Your task to perform on an android device: See recent photos Image 0: 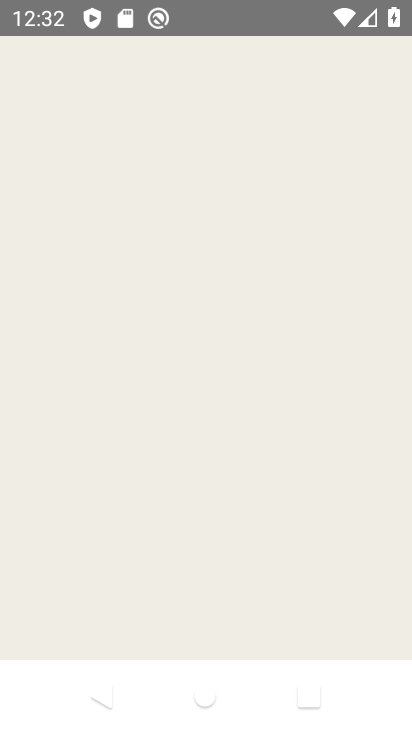
Step 0: click (214, 73)
Your task to perform on an android device: See recent photos Image 1: 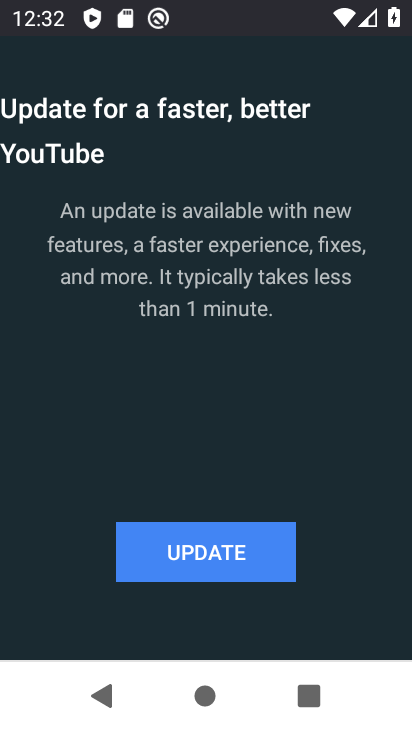
Step 1: press home button
Your task to perform on an android device: See recent photos Image 2: 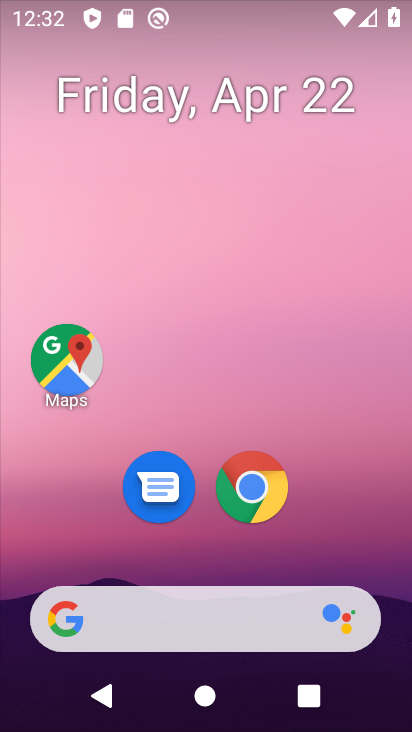
Step 2: drag from (172, 562) to (148, 189)
Your task to perform on an android device: See recent photos Image 3: 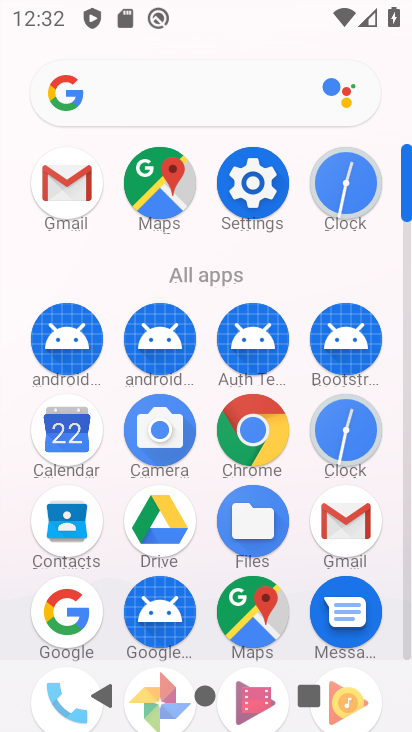
Step 3: drag from (189, 548) to (189, 289)
Your task to perform on an android device: See recent photos Image 4: 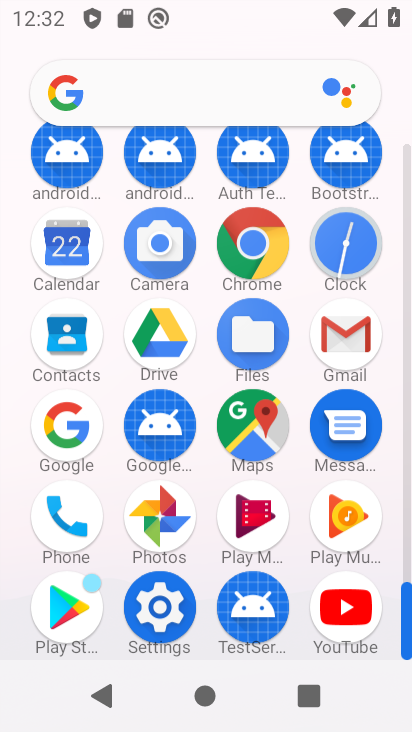
Step 4: click (146, 490)
Your task to perform on an android device: See recent photos Image 5: 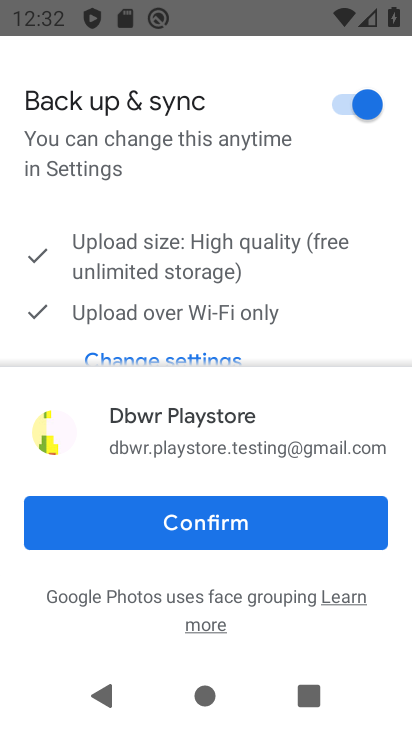
Step 5: click (238, 511)
Your task to perform on an android device: See recent photos Image 6: 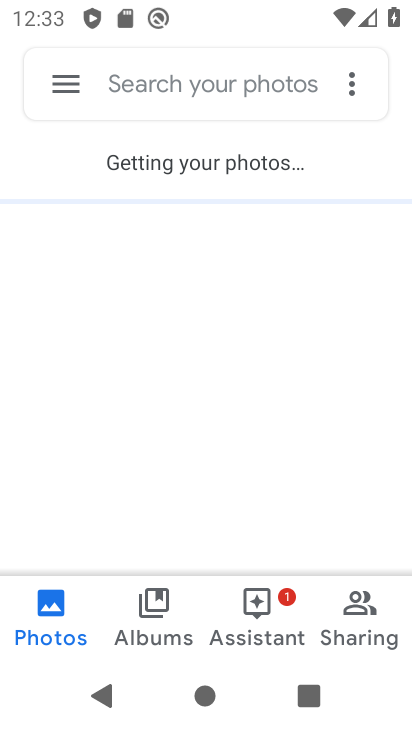
Step 6: click (60, 613)
Your task to perform on an android device: See recent photos Image 7: 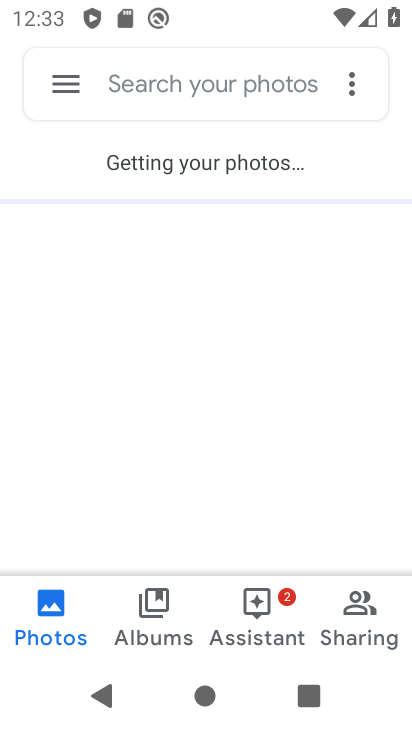
Step 7: task complete